Your task to perform on an android device: turn off javascript in the chrome app Image 0: 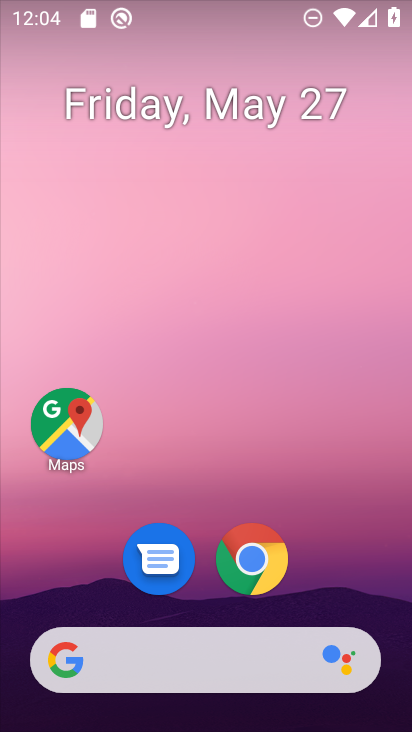
Step 0: click (277, 565)
Your task to perform on an android device: turn off javascript in the chrome app Image 1: 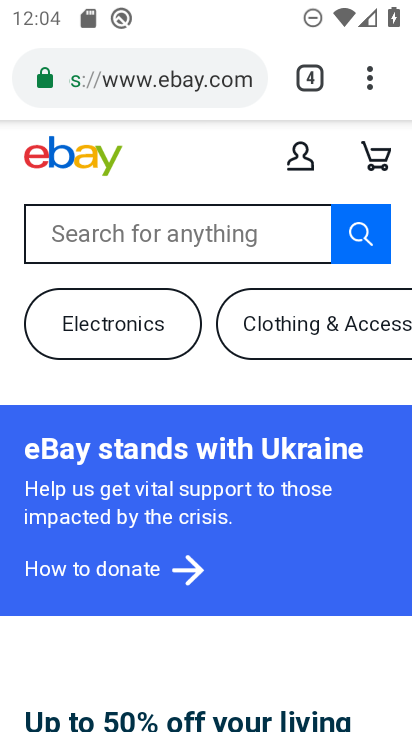
Step 1: click (368, 72)
Your task to perform on an android device: turn off javascript in the chrome app Image 2: 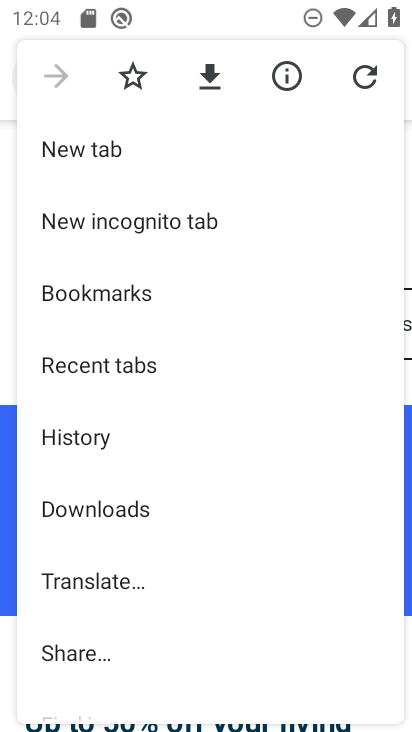
Step 2: drag from (193, 629) to (263, 225)
Your task to perform on an android device: turn off javascript in the chrome app Image 3: 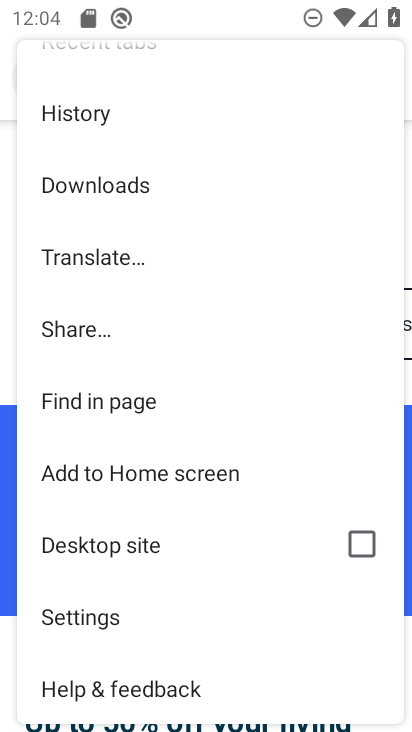
Step 3: click (142, 625)
Your task to perform on an android device: turn off javascript in the chrome app Image 4: 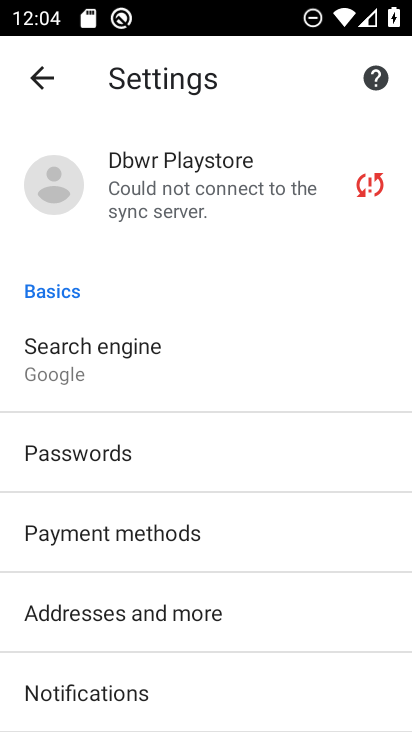
Step 4: drag from (230, 645) to (329, 232)
Your task to perform on an android device: turn off javascript in the chrome app Image 5: 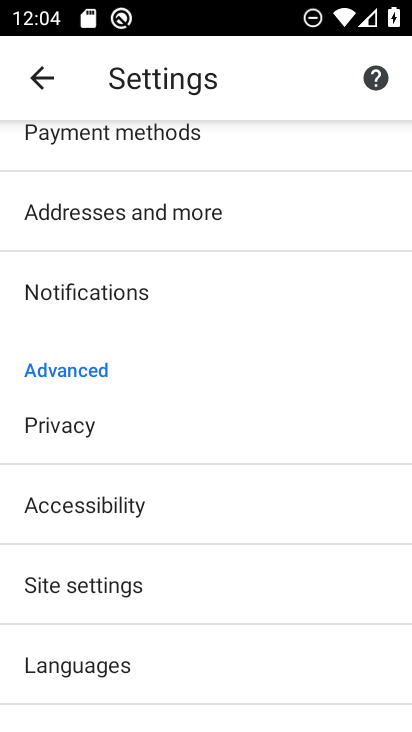
Step 5: click (74, 589)
Your task to perform on an android device: turn off javascript in the chrome app Image 6: 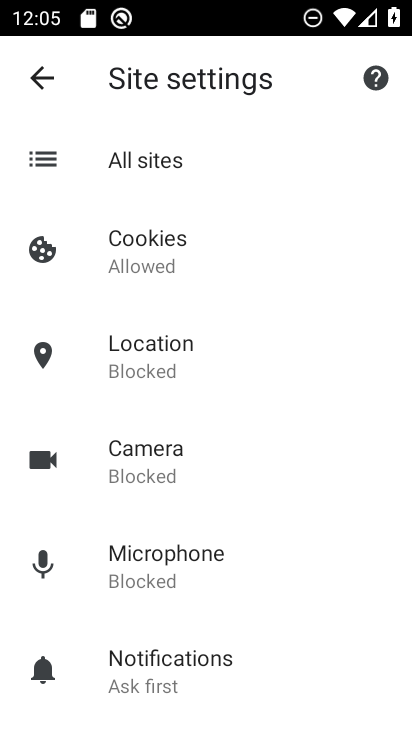
Step 6: drag from (250, 559) to (290, 202)
Your task to perform on an android device: turn off javascript in the chrome app Image 7: 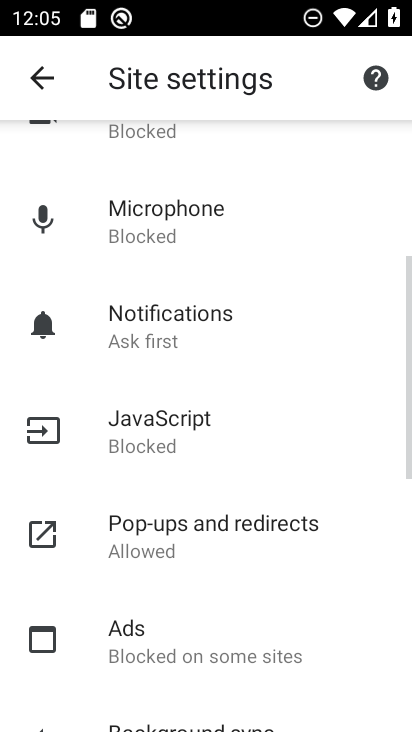
Step 7: click (125, 454)
Your task to perform on an android device: turn off javascript in the chrome app Image 8: 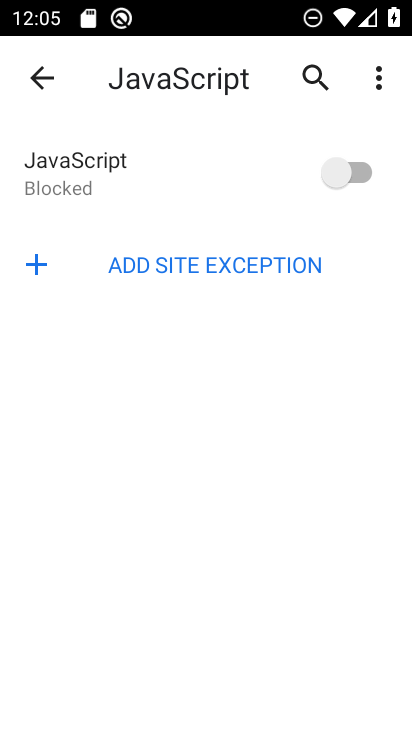
Step 8: task complete